Your task to perform on an android device: turn on sleep mode Image 0: 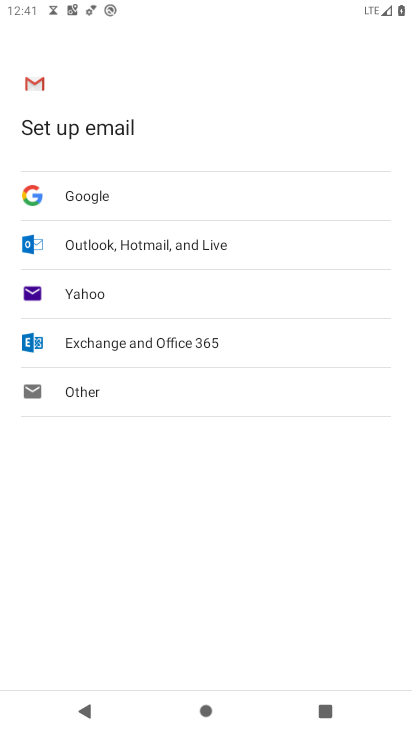
Step 0: drag from (208, 330) to (270, 51)
Your task to perform on an android device: turn on sleep mode Image 1: 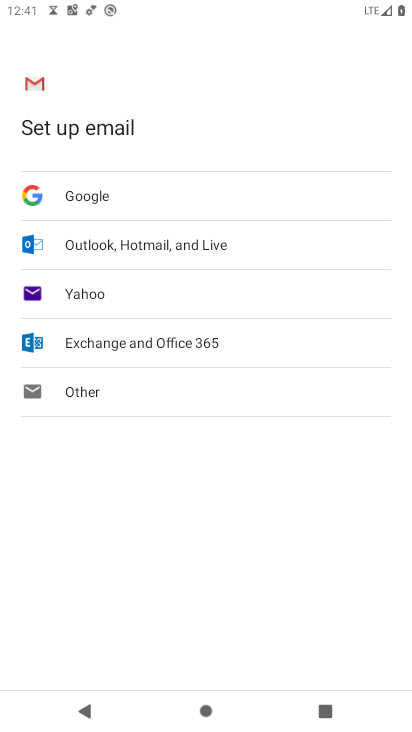
Step 1: drag from (294, 555) to (321, 274)
Your task to perform on an android device: turn on sleep mode Image 2: 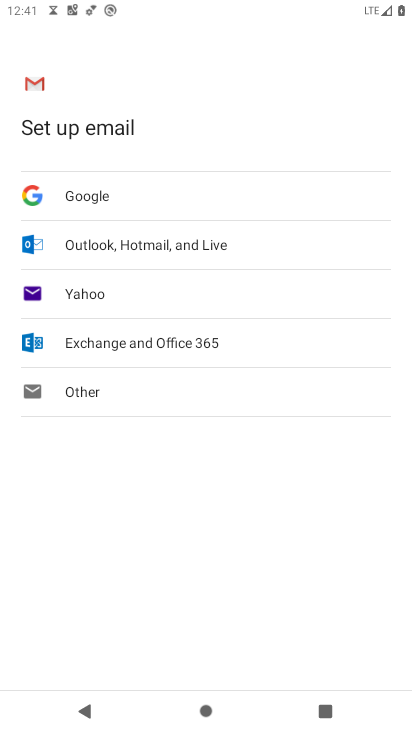
Step 2: press home button
Your task to perform on an android device: turn on sleep mode Image 3: 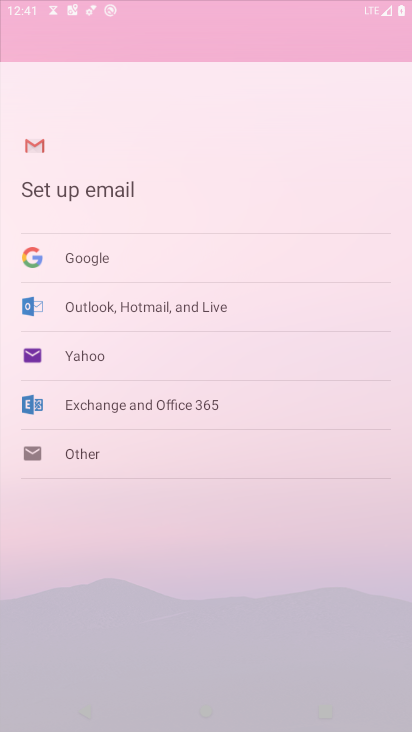
Step 3: drag from (240, 481) to (287, 86)
Your task to perform on an android device: turn on sleep mode Image 4: 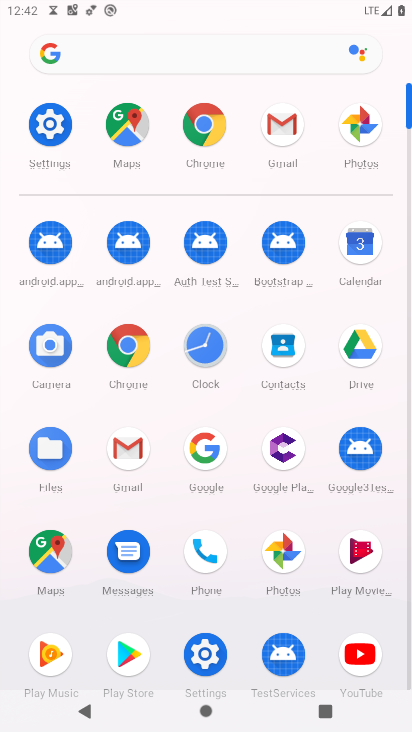
Step 4: click (198, 648)
Your task to perform on an android device: turn on sleep mode Image 5: 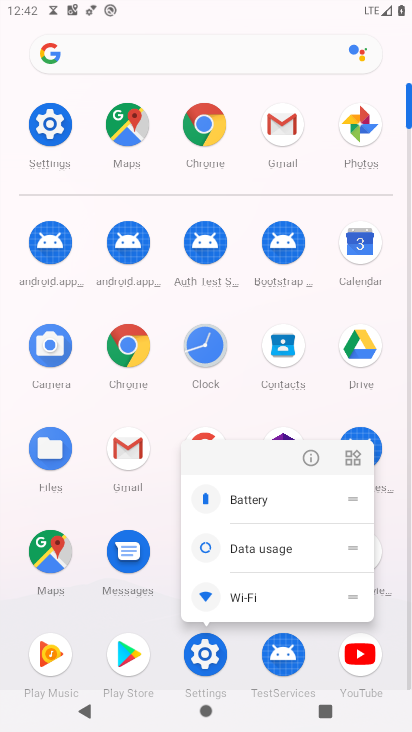
Step 5: click (320, 447)
Your task to perform on an android device: turn on sleep mode Image 6: 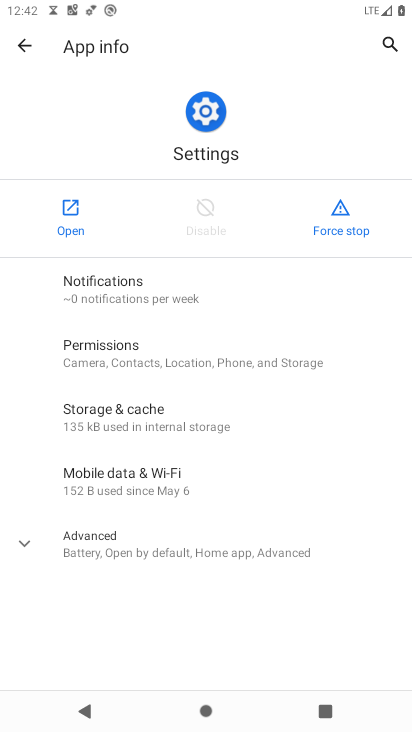
Step 6: click (72, 218)
Your task to perform on an android device: turn on sleep mode Image 7: 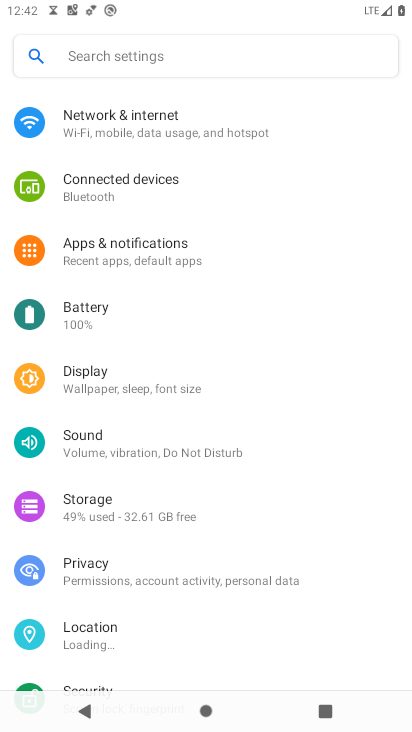
Step 7: drag from (241, 505) to (263, 306)
Your task to perform on an android device: turn on sleep mode Image 8: 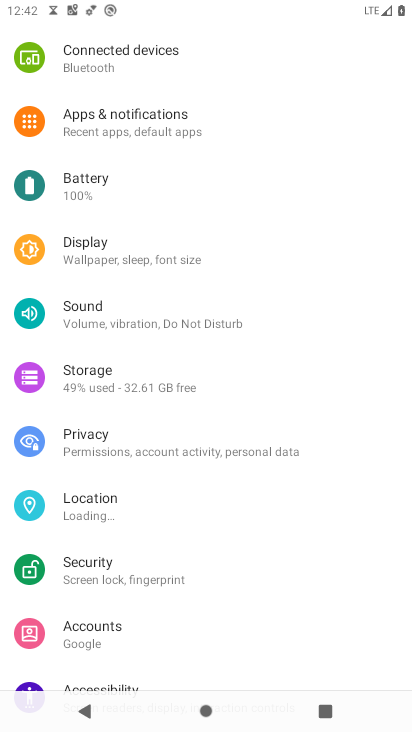
Step 8: drag from (264, 199) to (291, 714)
Your task to perform on an android device: turn on sleep mode Image 9: 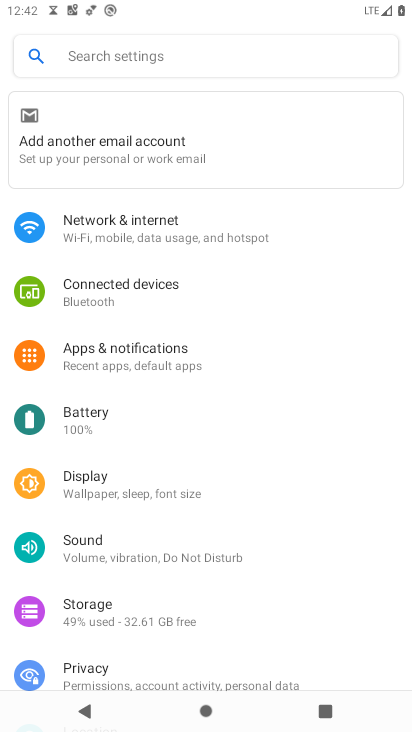
Step 9: press home button
Your task to perform on an android device: turn on sleep mode Image 10: 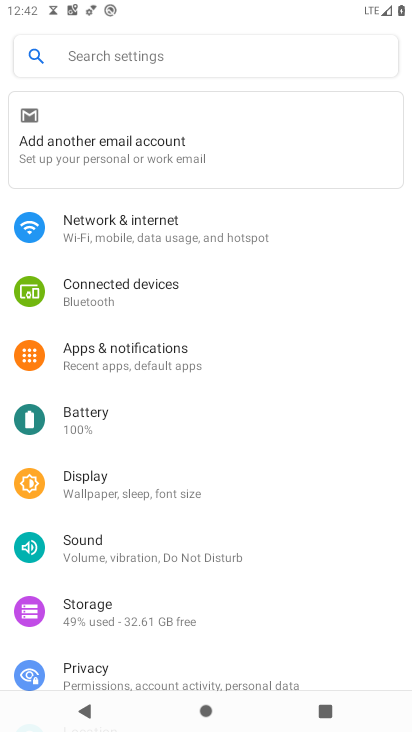
Step 10: drag from (173, 622) to (210, 366)
Your task to perform on an android device: turn on sleep mode Image 11: 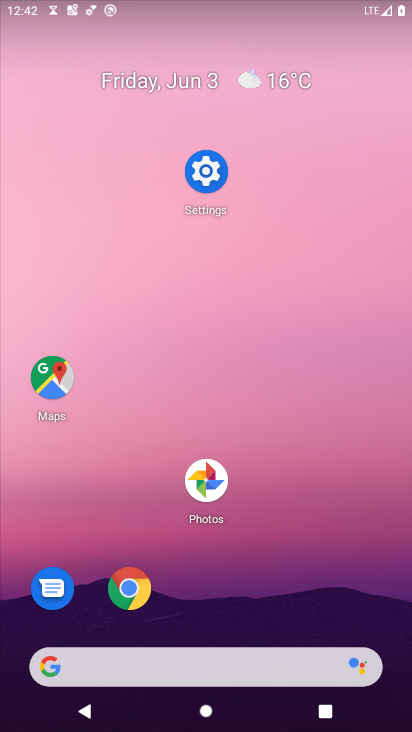
Step 11: drag from (185, 601) to (174, 12)
Your task to perform on an android device: turn on sleep mode Image 12: 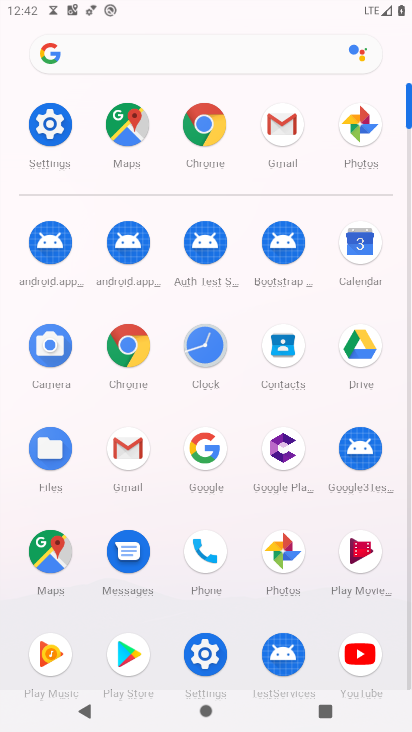
Step 12: click (44, 128)
Your task to perform on an android device: turn on sleep mode Image 13: 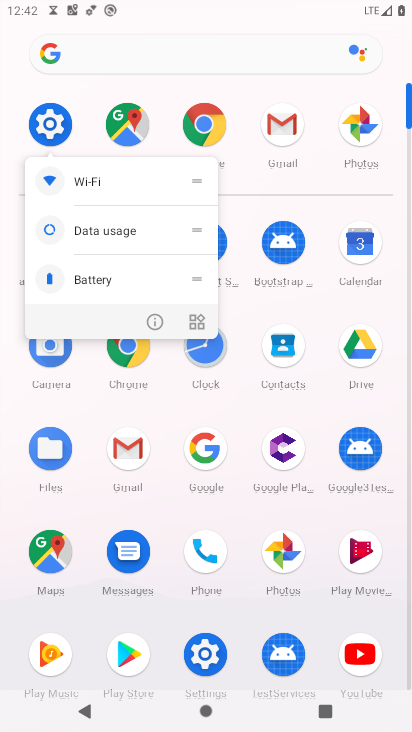
Step 13: click (159, 318)
Your task to perform on an android device: turn on sleep mode Image 14: 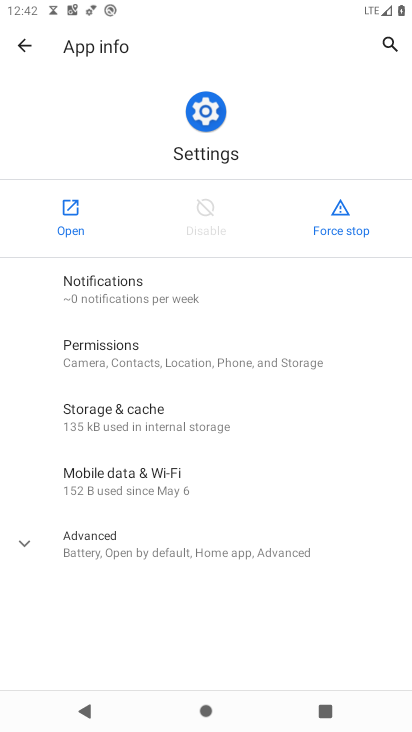
Step 14: click (70, 222)
Your task to perform on an android device: turn on sleep mode Image 15: 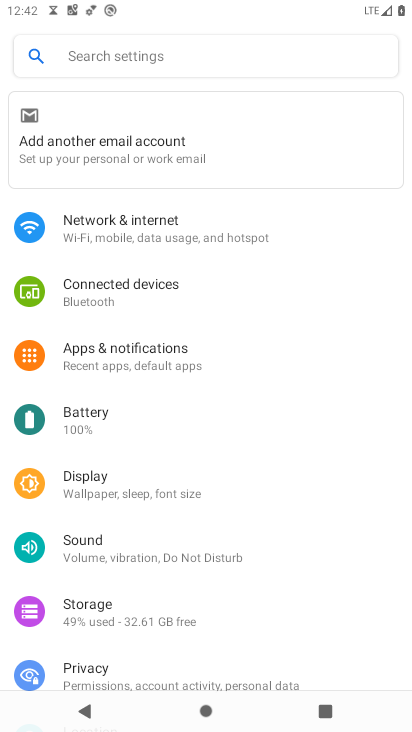
Step 15: click (166, 495)
Your task to perform on an android device: turn on sleep mode Image 16: 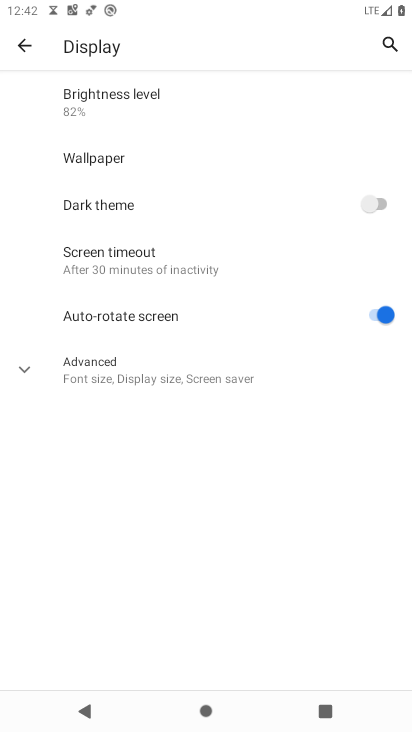
Step 16: drag from (205, 493) to (303, 129)
Your task to perform on an android device: turn on sleep mode Image 17: 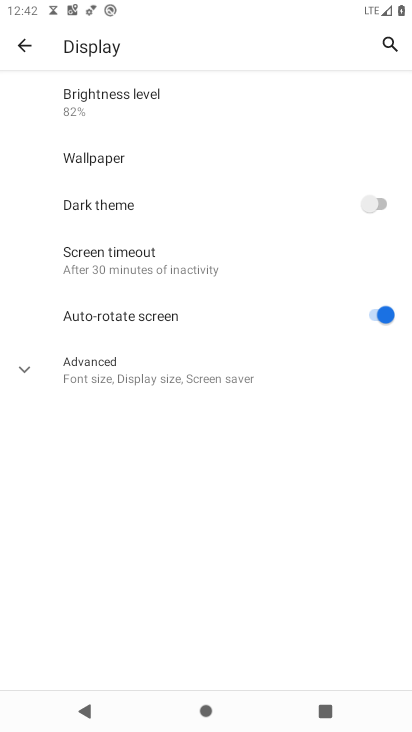
Step 17: click (204, 265)
Your task to perform on an android device: turn on sleep mode Image 18: 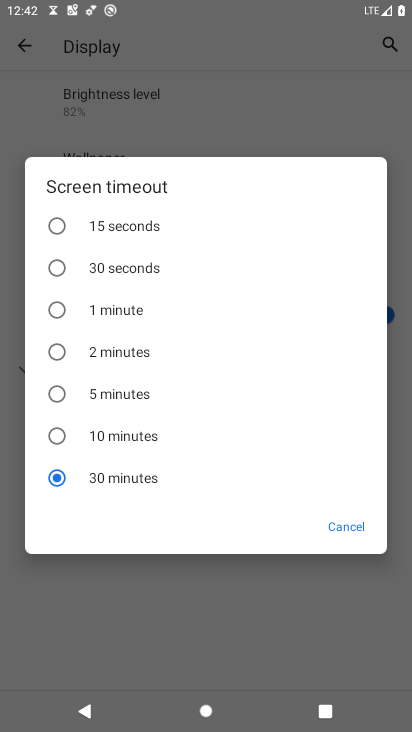
Step 18: task complete